Your task to perform on an android device: Search for Italian restaurants on Maps Image 0: 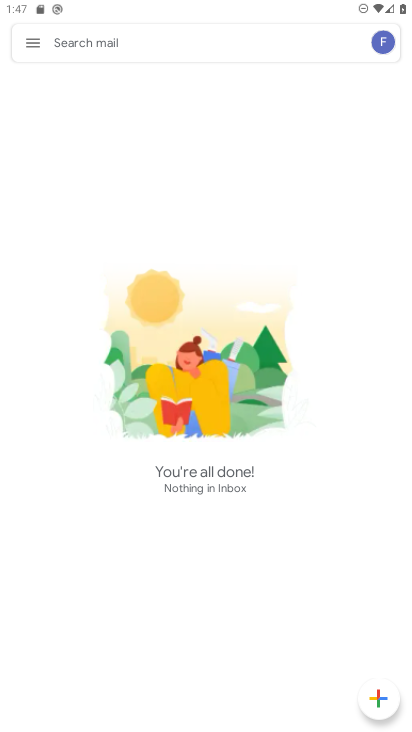
Step 0: press home button
Your task to perform on an android device: Search for Italian restaurants on Maps Image 1: 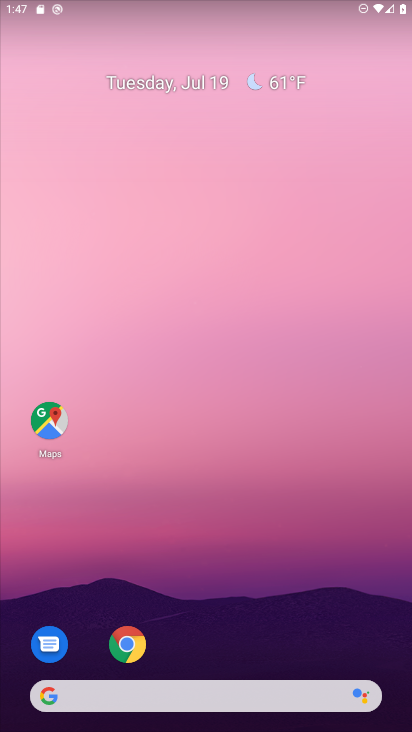
Step 1: drag from (178, 664) to (144, 80)
Your task to perform on an android device: Search for Italian restaurants on Maps Image 2: 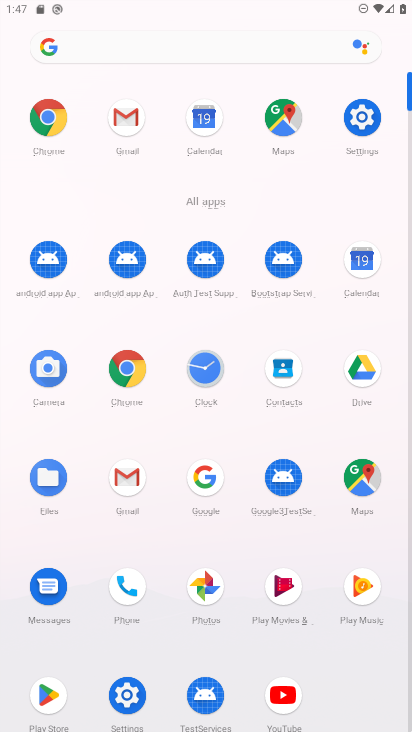
Step 2: click (374, 464)
Your task to perform on an android device: Search for Italian restaurants on Maps Image 3: 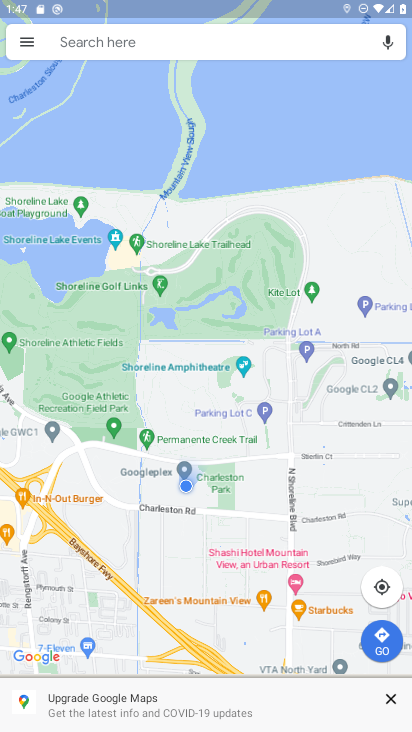
Step 3: click (172, 56)
Your task to perform on an android device: Search for Italian restaurants on Maps Image 4: 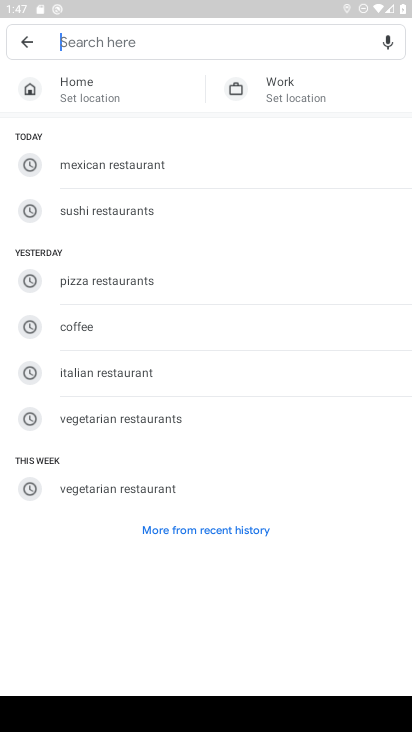
Step 4: click (106, 369)
Your task to perform on an android device: Search for Italian restaurants on Maps Image 5: 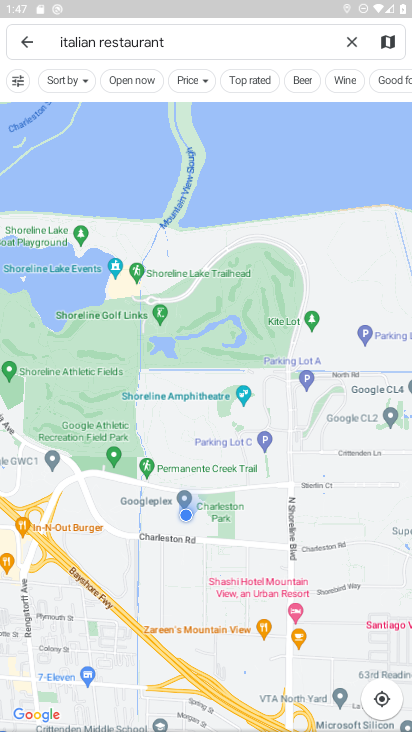
Step 5: task complete